Your task to perform on an android device: Go to calendar. Show me events next week Image 0: 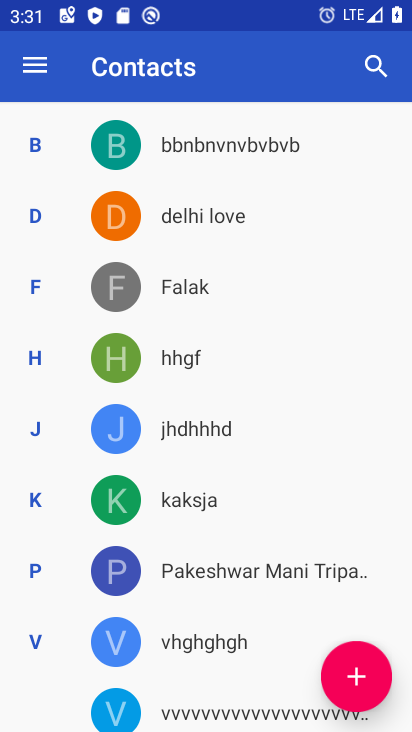
Step 0: press home button
Your task to perform on an android device: Go to calendar. Show me events next week Image 1: 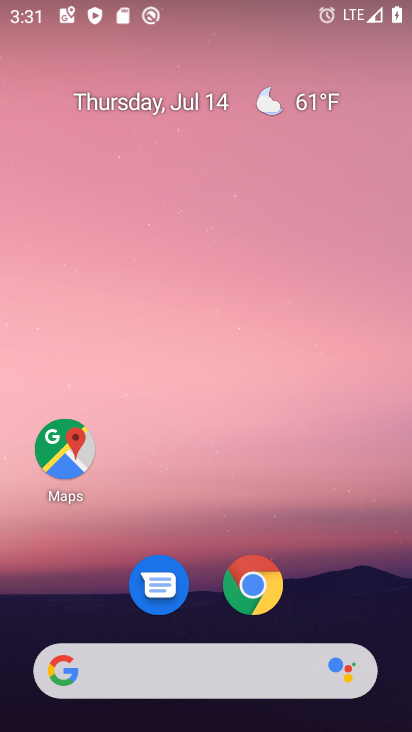
Step 1: drag from (202, 496) to (240, 75)
Your task to perform on an android device: Go to calendar. Show me events next week Image 2: 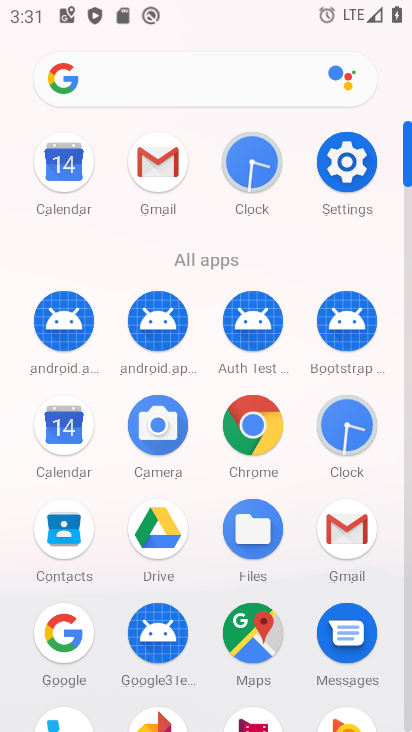
Step 2: click (70, 155)
Your task to perform on an android device: Go to calendar. Show me events next week Image 3: 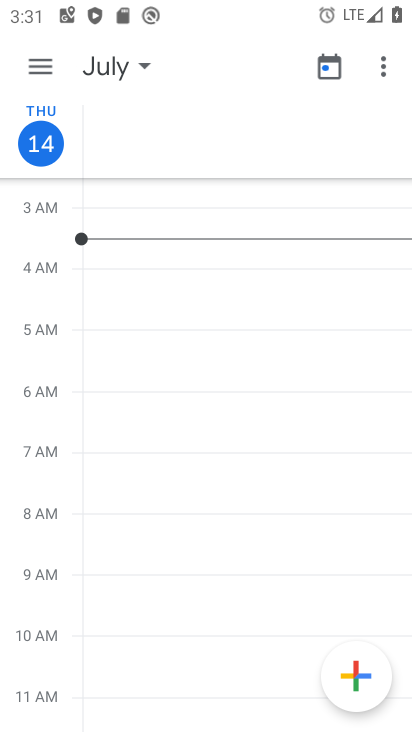
Step 3: click (40, 62)
Your task to perform on an android device: Go to calendar. Show me events next week Image 4: 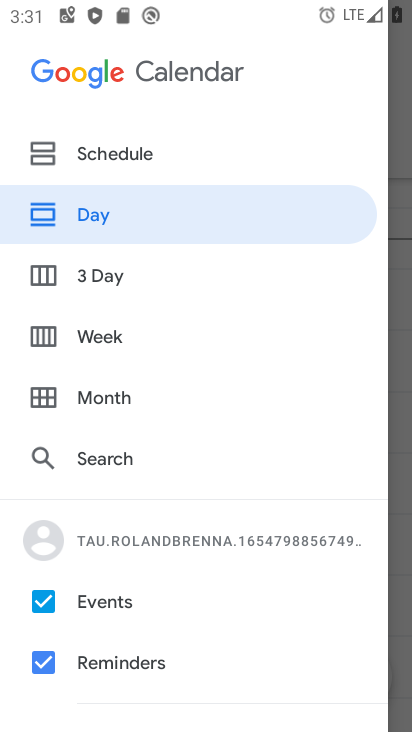
Step 4: click (48, 330)
Your task to perform on an android device: Go to calendar. Show me events next week Image 5: 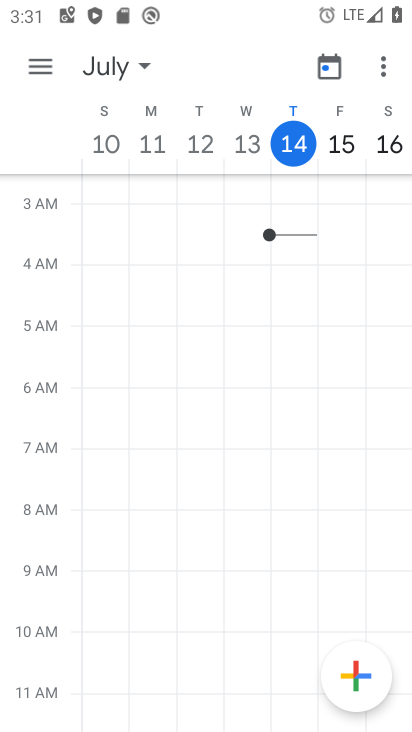
Step 5: task complete